Your task to perform on an android device: turn off notifications settings in the gmail app Image 0: 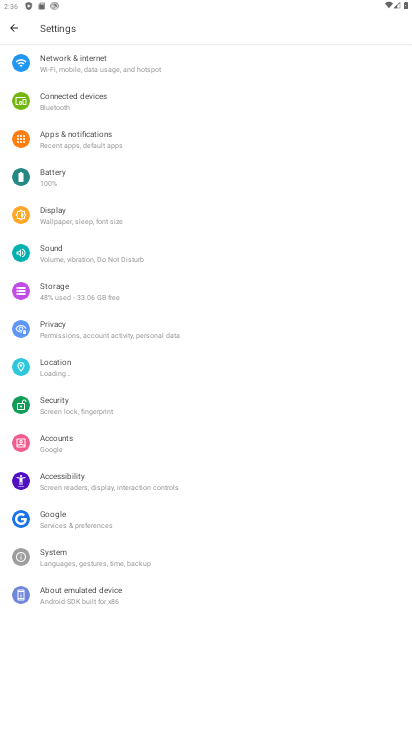
Step 0: press home button
Your task to perform on an android device: turn off notifications settings in the gmail app Image 1: 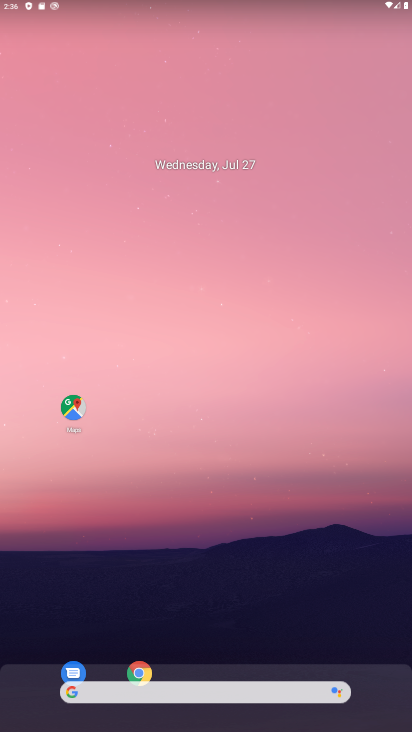
Step 1: drag from (250, 633) to (252, 66)
Your task to perform on an android device: turn off notifications settings in the gmail app Image 2: 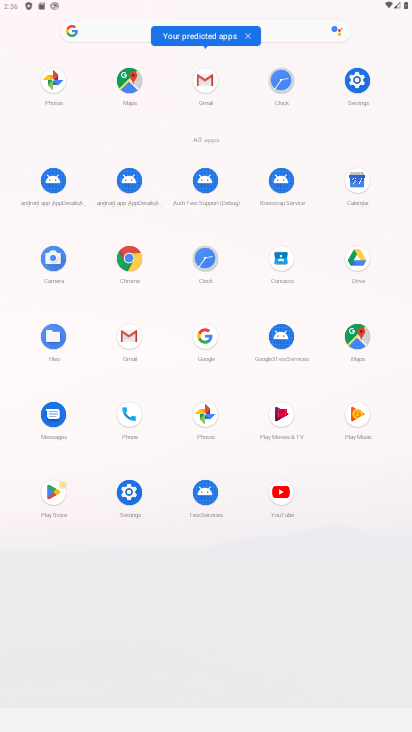
Step 2: click (126, 334)
Your task to perform on an android device: turn off notifications settings in the gmail app Image 3: 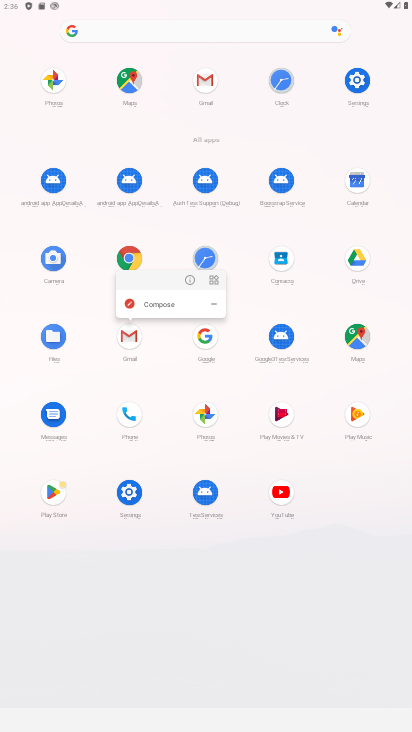
Step 3: click (191, 281)
Your task to perform on an android device: turn off notifications settings in the gmail app Image 4: 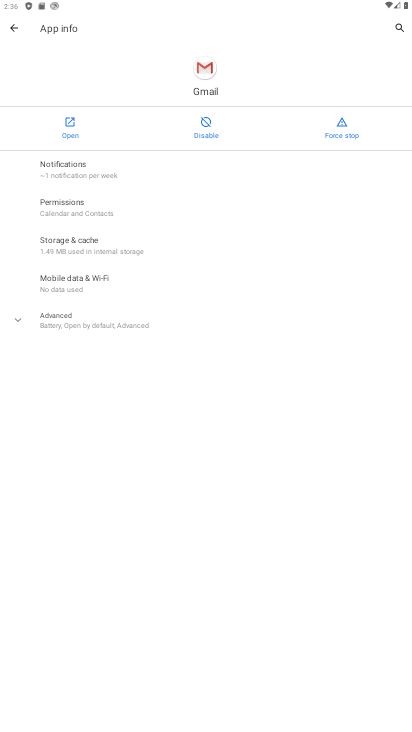
Step 4: click (55, 160)
Your task to perform on an android device: turn off notifications settings in the gmail app Image 5: 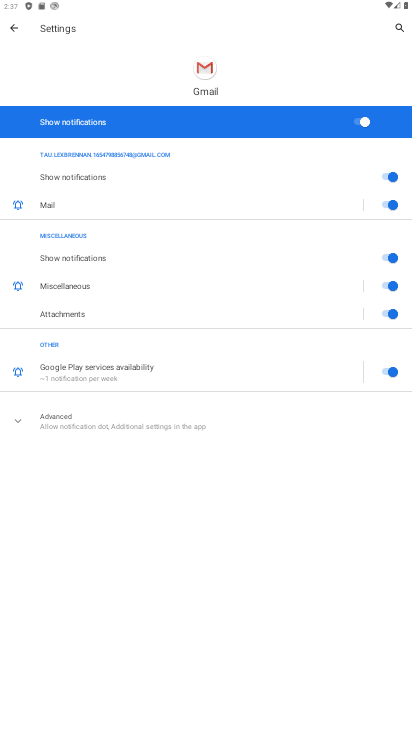
Step 5: task complete